Your task to perform on an android device: Turn off the flashlight Image 0: 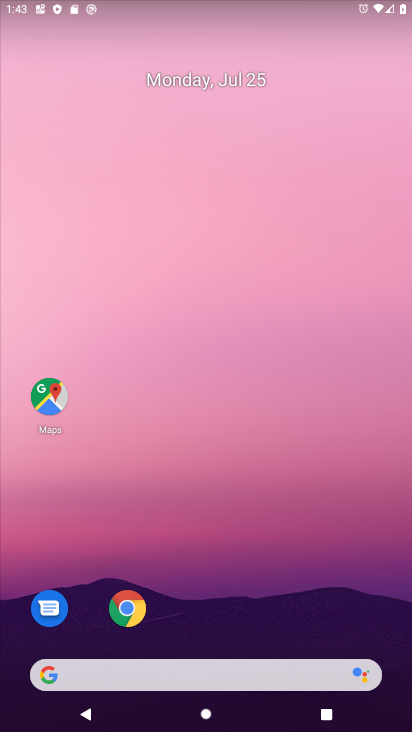
Step 0: drag from (273, 621) to (272, 90)
Your task to perform on an android device: Turn off the flashlight Image 1: 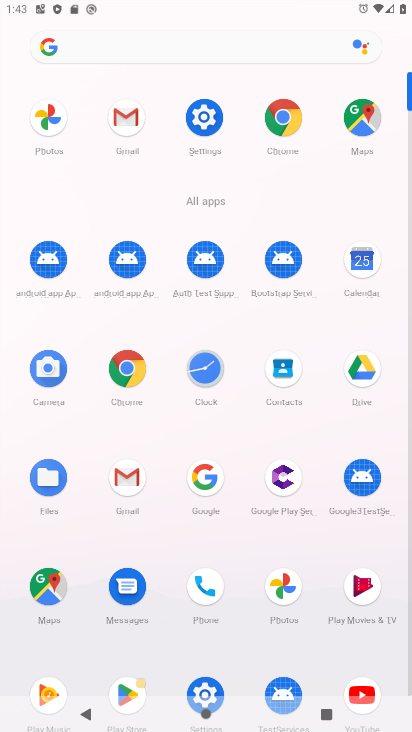
Step 1: click (201, 124)
Your task to perform on an android device: Turn off the flashlight Image 2: 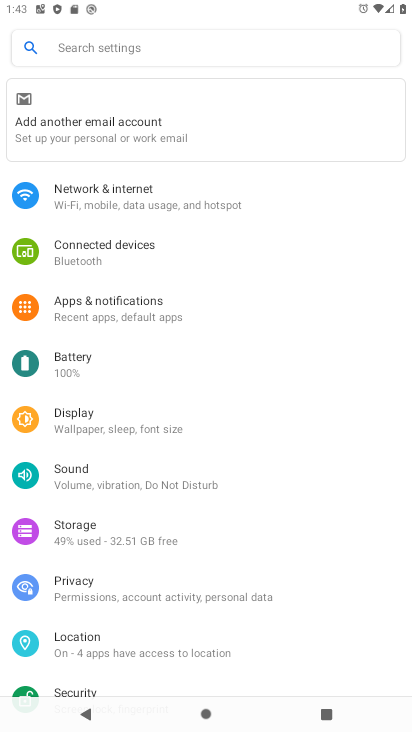
Step 2: click (105, 416)
Your task to perform on an android device: Turn off the flashlight Image 3: 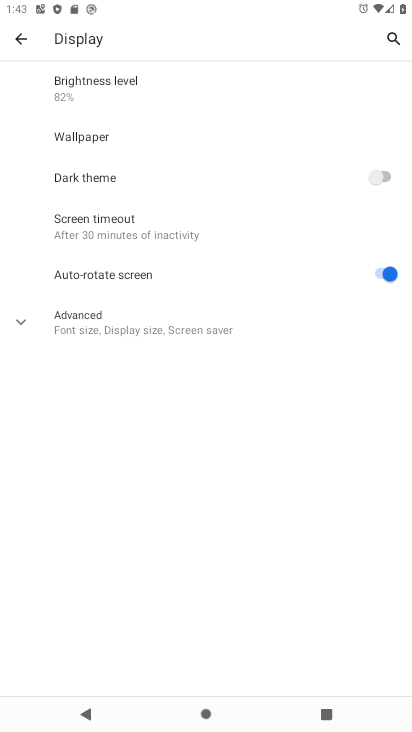
Step 3: click (136, 237)
Your task to perform on an android device: Turn off the flashlight Image 4: 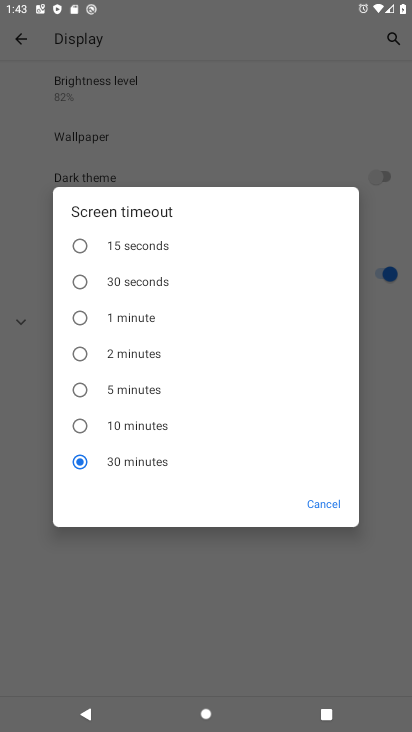
Step 4: task complete